Your task to perform on an android device: Open calendar and show me the second week of next month Image 0: 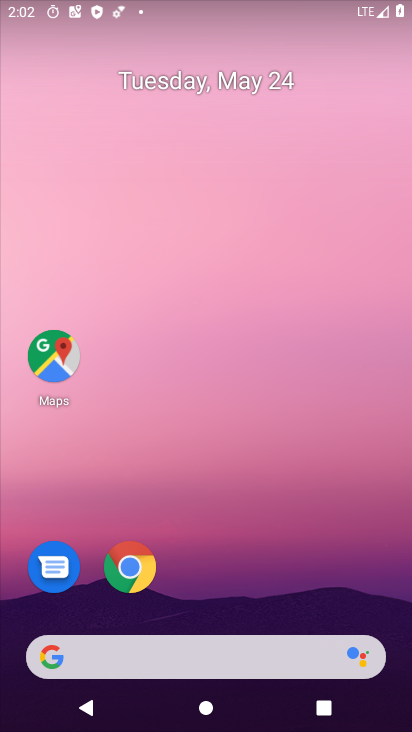
Step 0: drag from (229, 596) to (343, 3)
Your task to perform on an android device: Open calendar and show me the second week of next month Image 1: 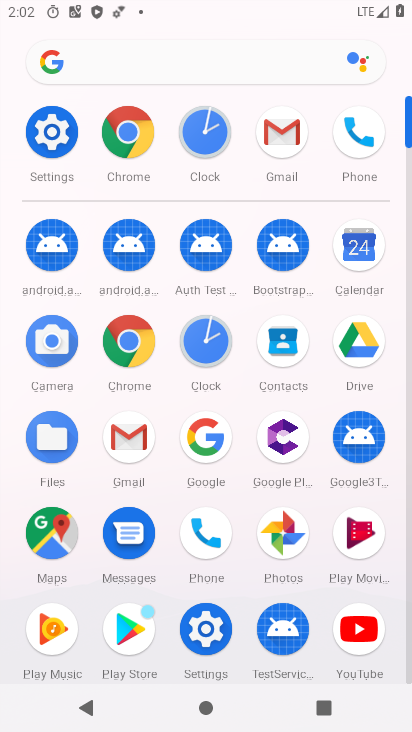
Step 1: click (364, 269)
Your task to perform on an android device: Open calendar and show me the second week of next month Image 2: 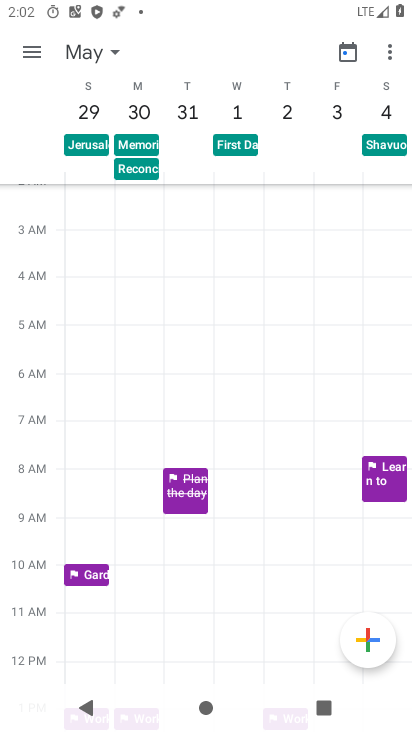
Step 2: click (393, 40)
Your task to perform on an android device: Open calendar and show me the second week of next month Image 3: 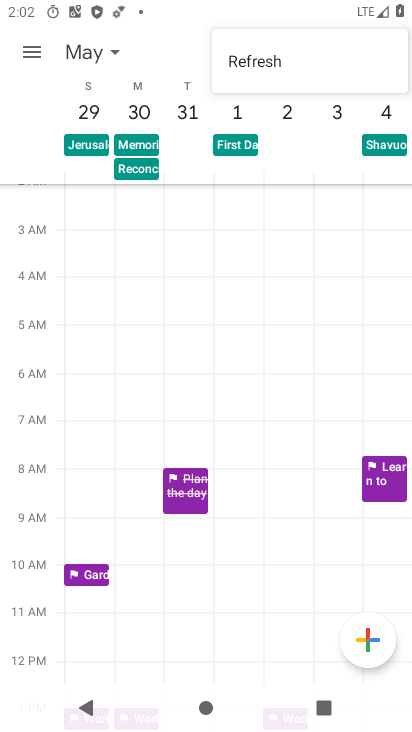
Step 3: task complete